Your task to perform on an android device: delete browsing data in the chrome app Image 0: 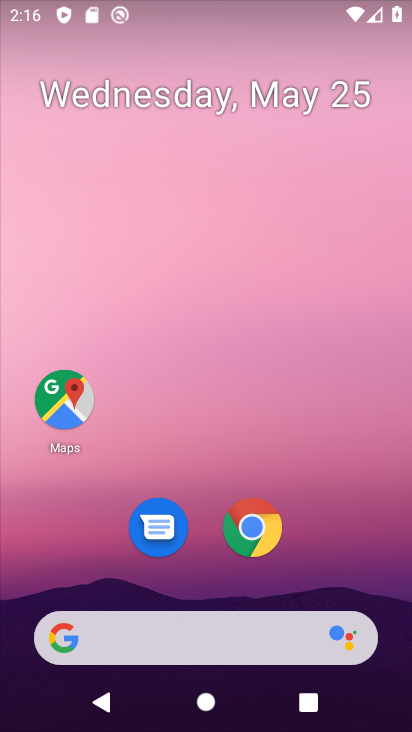
Step 0: click (248, 512)
Your task to perform on an android device: delete browsing data in the chrome app Image 1: 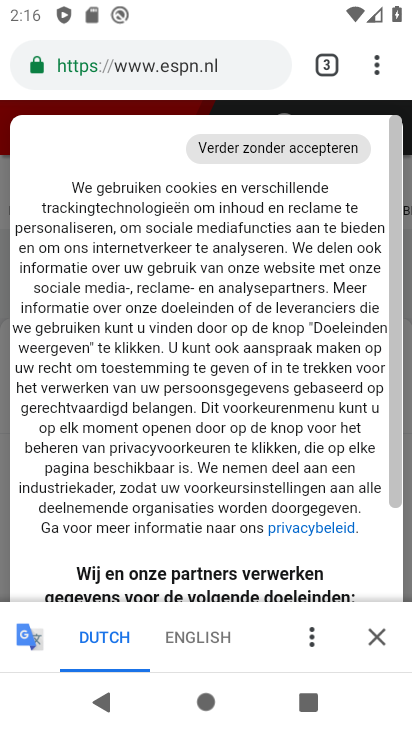
Step 1: task complete